Your task to perform on an android device: add a contact Image 0: 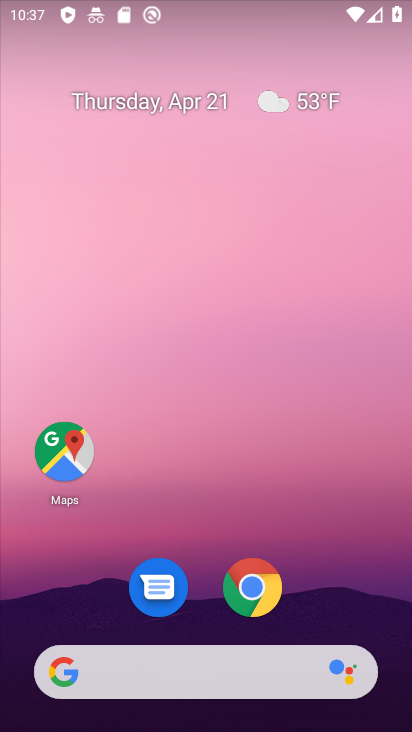
Step 0: click (60, 279)
Your task to perform on an android device: add a contact Image 1: 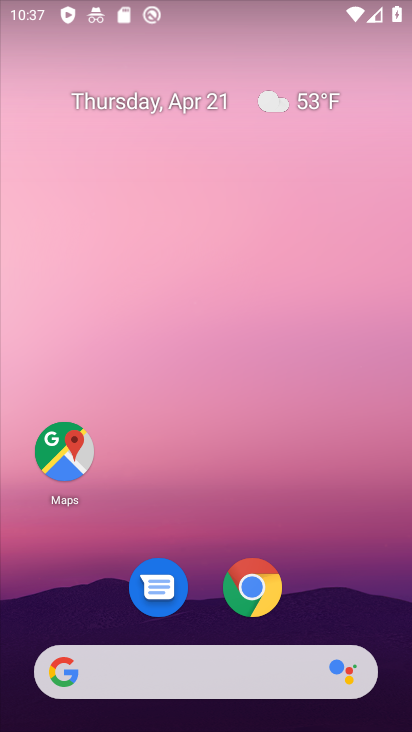
Step 1: drag from (203, 654) to (201, 239)
Your task to perform on an android device: add a contact Image 2: 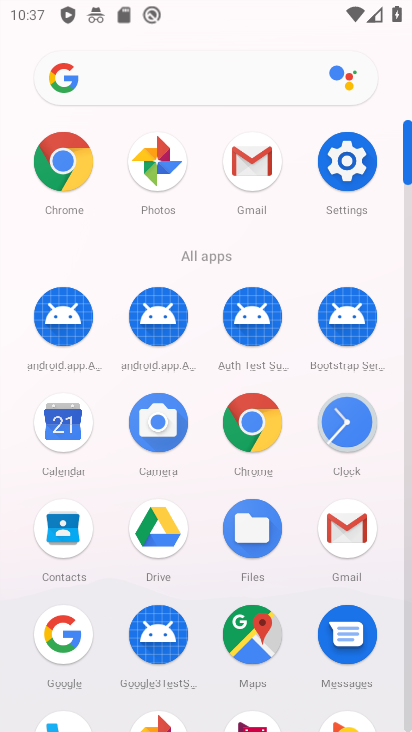
Step 2: drag from (195, 577) to (205, 150)
Your task to perform on an android device: add a contact Image 3: 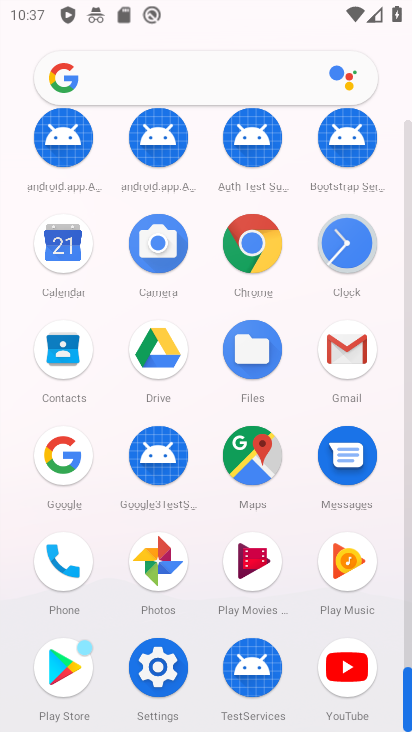
Step 3: click (52, 353)
Your task to perform on an android device: add a contact Image 4: 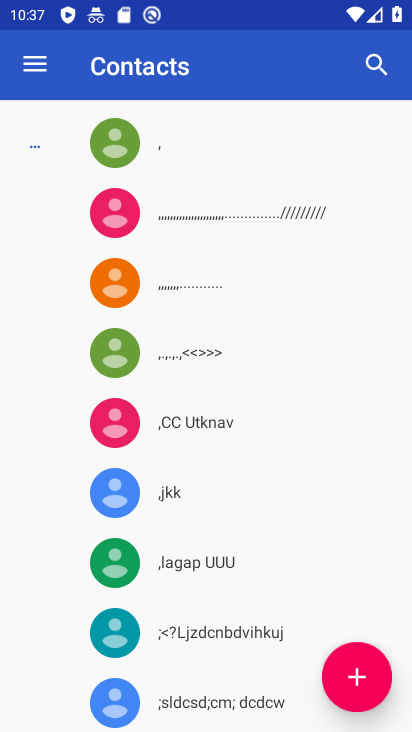
Step 4: click (351, 670)
Your task to perform on an android device: add a contact Image 5: 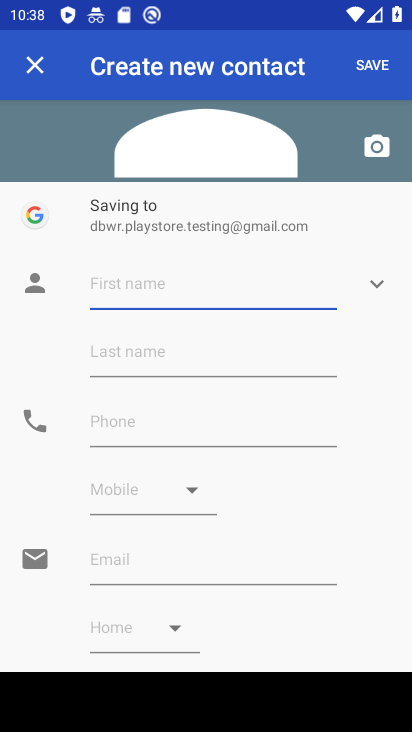
Step 5: type "vcvbc"
Your task to perform on an android device: add a contact Image 6: 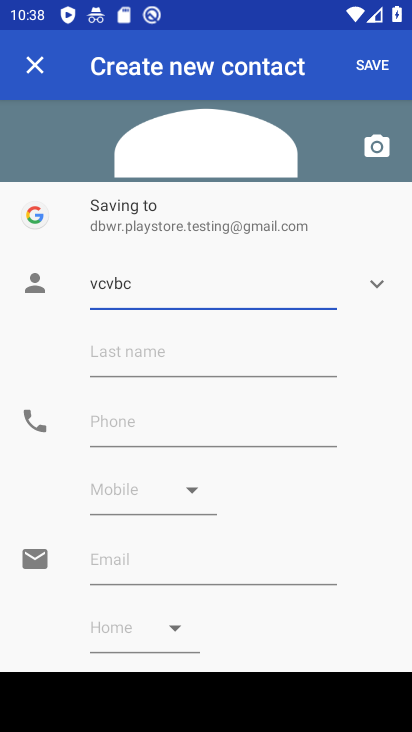
Step 6: click (220, 436)
Your task to perform on an android device: add a contact Image 7: 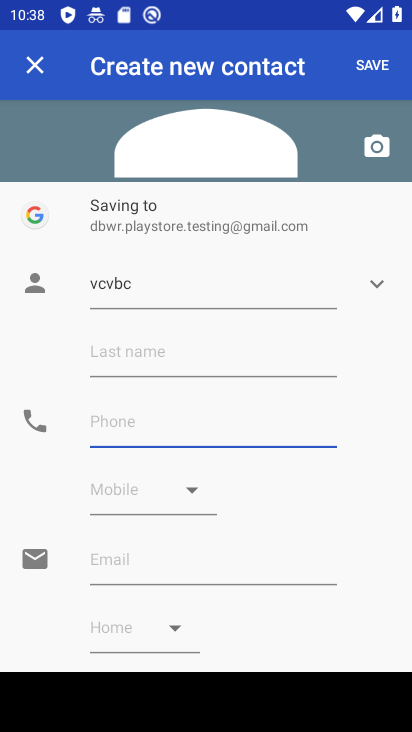
Step 7: type "68978908975"
Your task to perform on an android device: add a contact Image 8: 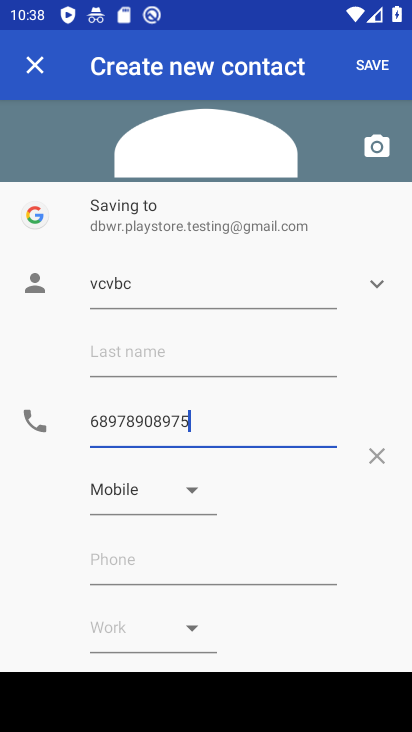
Step 8: click (384, 68)
Your task to perform on an android device: add a contact Image 9: 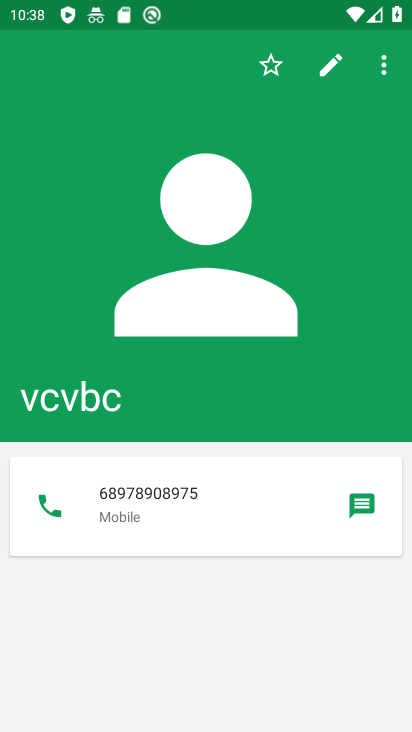
Step 9: task complete